Your task to perform on an android device: turn on translation in the chrome app Image 0: 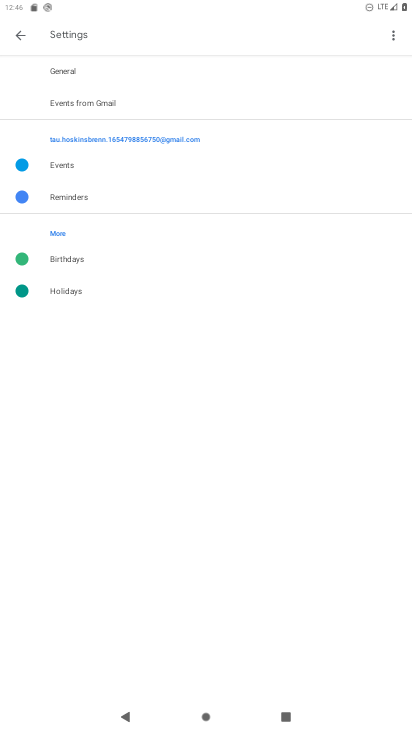
Step 0: press home button
Your task to perform on an android device: turn on translation in the chrome app Image 1: 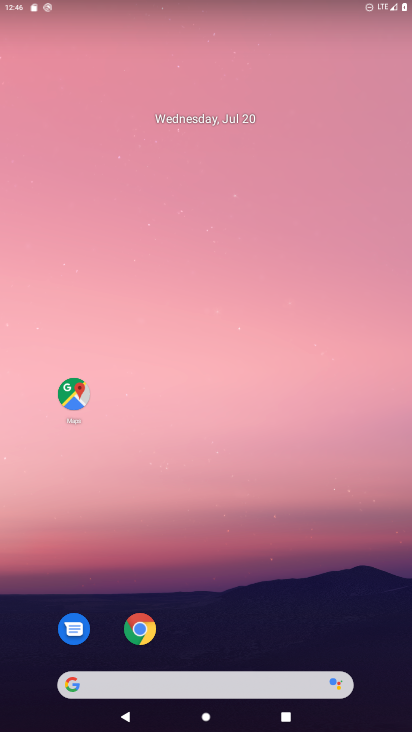
Step 1: drag from (190, 620) to (194, 70)
Your task to perform on an android device: turn on translation in the chrome app Image 2: 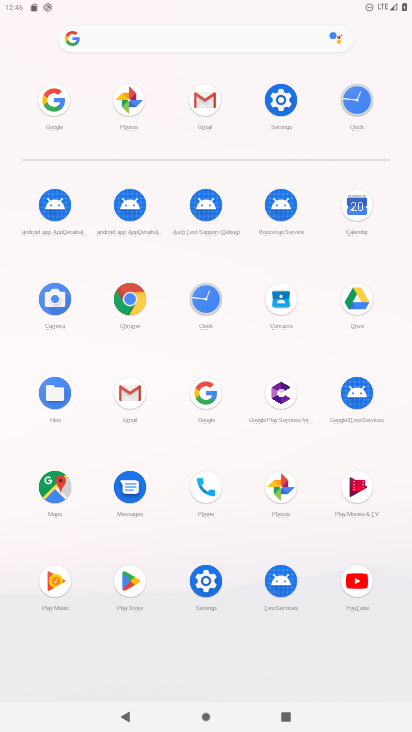
Step 2: click (124, 293)
Your task to perform on an android device: turn on translation in the chrome app Image 3: 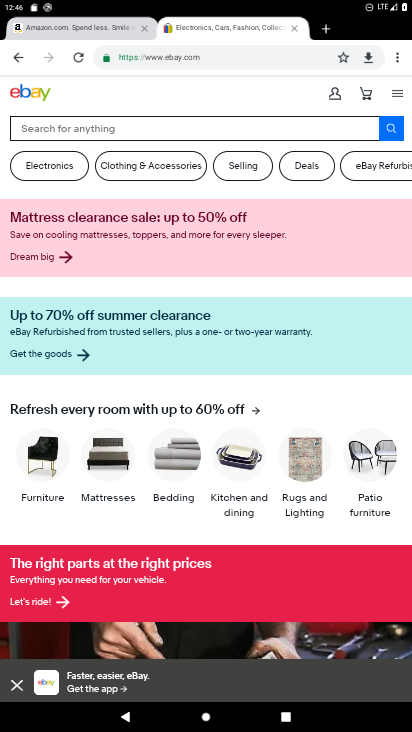
Step 3: click (399, 54)
Your task to perform on an android device: turn on translation in the chrome app Image 4: 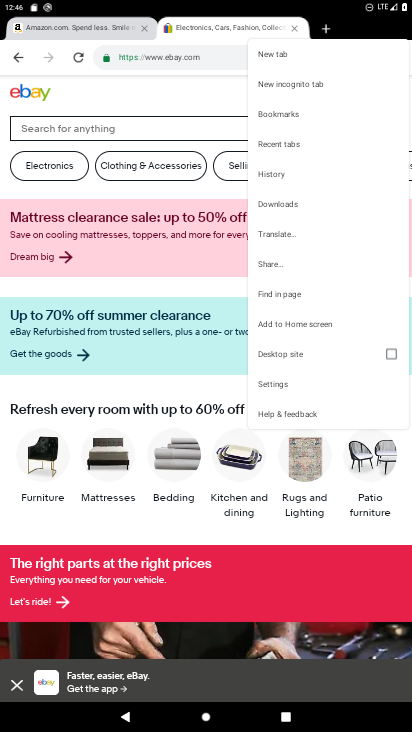
Step 4: click (276, 384)
Your task to perform on an android device: turn on translation in the chrome app Image 5: 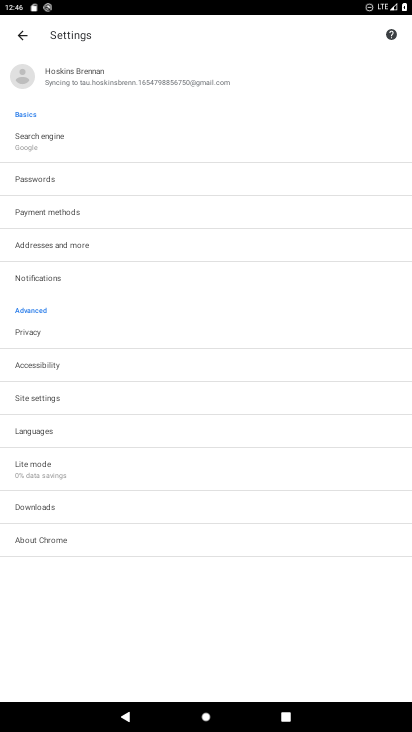
Step 5: click (35, 424)
Your task to perform on an android device: turn on translation in the chrome app Image 6: 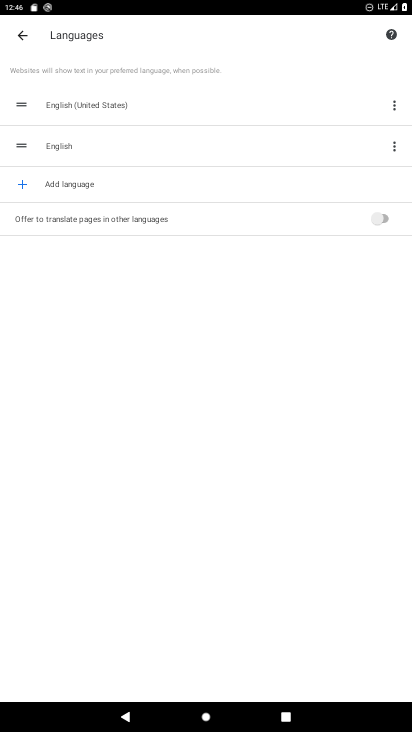
Step 6: click (379, 219)
Your task to perform on an android device: turn on translation in the chrome app Image 7: 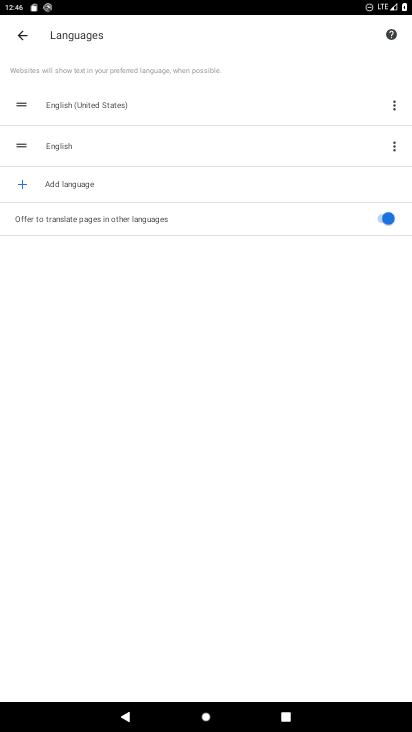
Step 7: task complete